Your task to perform on an android device: manage bookmarks in the chrome app Image 0: 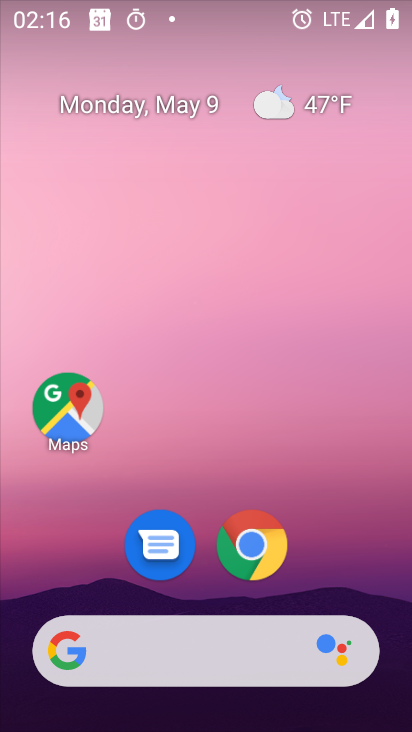
Step 0: drag from (325, 599) to (391, 29)
Your task to perform on an android device: manage bookmarks in the chrome app Image 1: 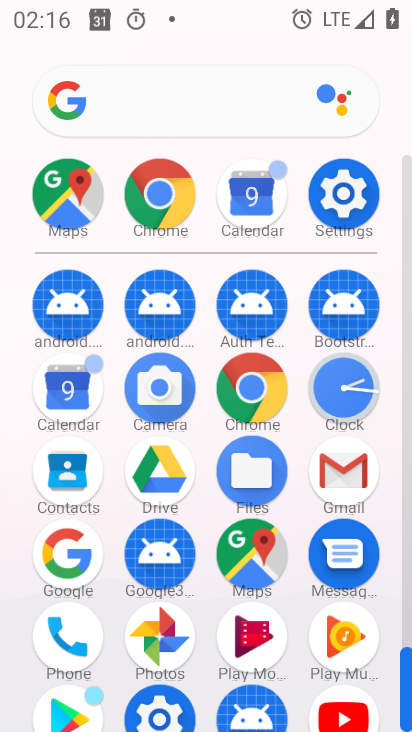
Step 1: click (271, 393)
Your task to perform on an android device: manage bookmarks in the chrome app Image 2: 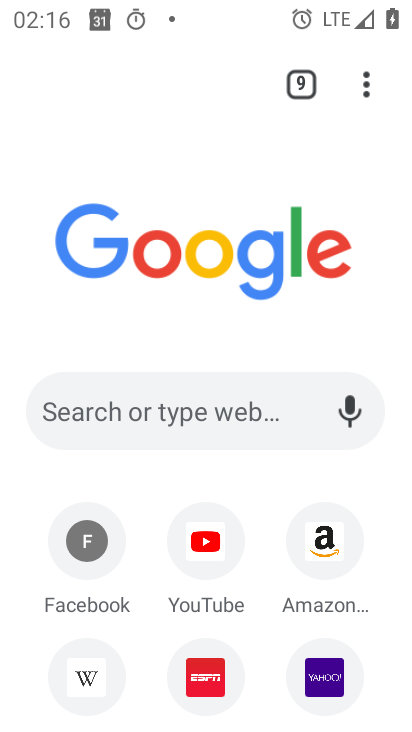
Step 2: task complete